Your task to perform on an android device: Open the stopwatch Image 0: 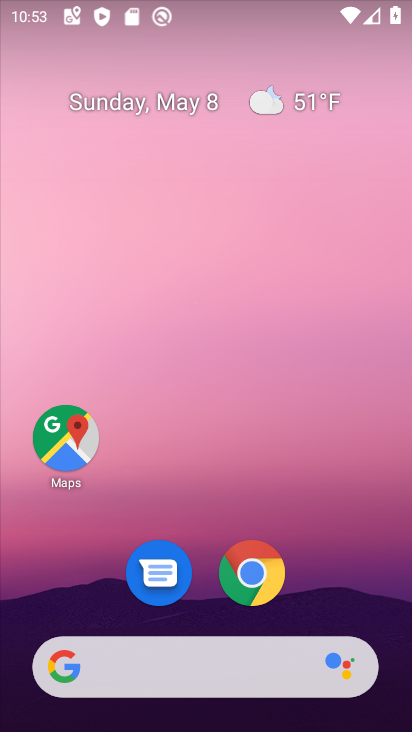
Step 0: drag from (191, 635) to (224, 257)
Your task to perform on an android device: Open the stopwatch Image 1: 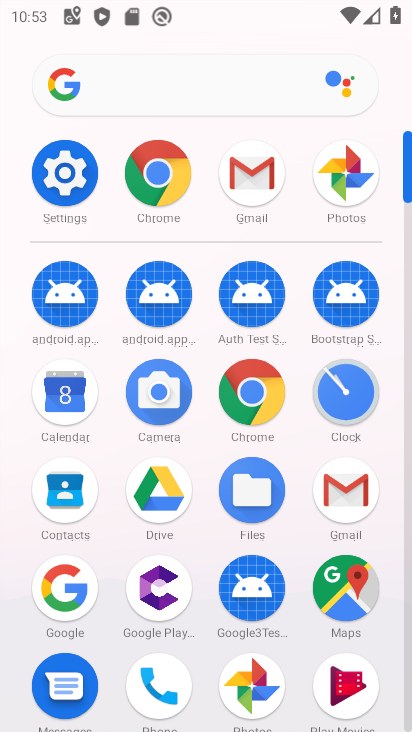
Step 1: click (338, 401)
Your task to perform on an android device: Open the stopwatch Image 2: 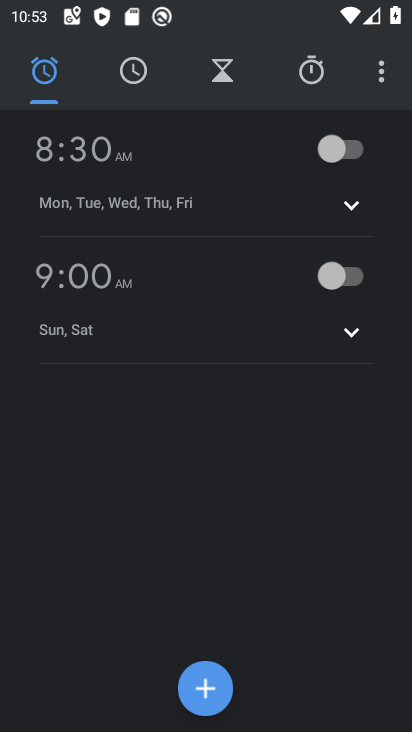
Step 2: click (304, 87)
Your task to perform on an android device: Open the stopwatch Image 3: 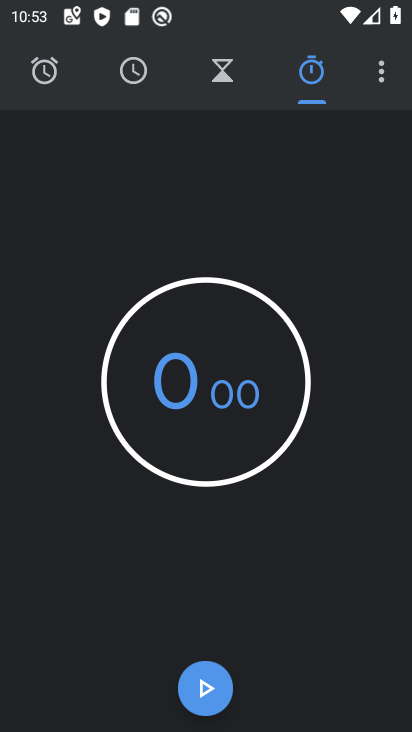
Step 3: task complete